Your task to perform on an android device: Turn off the flashlight Image 0: 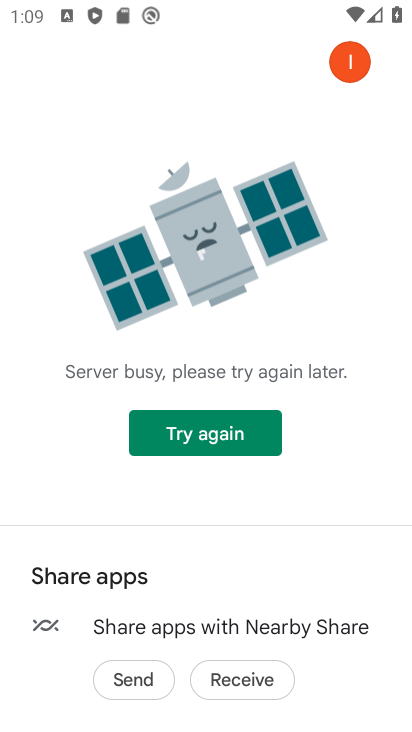
Step 0: press home button
Your task to perform on an android device: Turn off the flashlight Image 1: 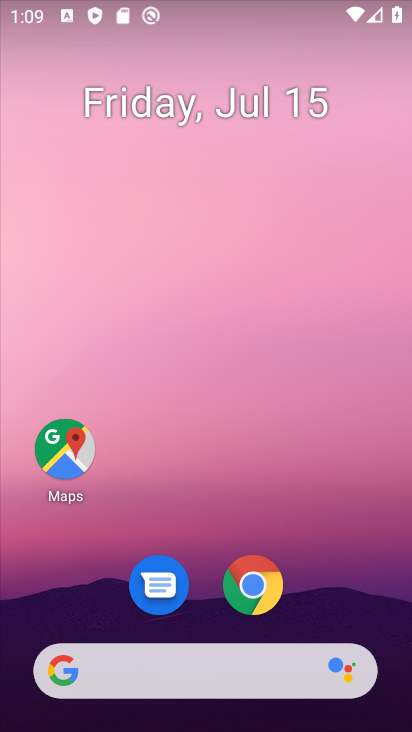
Step 1: drag from (331, 368) to (327, 26)
Your task to perform on an android device: Turn off the flashlight Image 2: 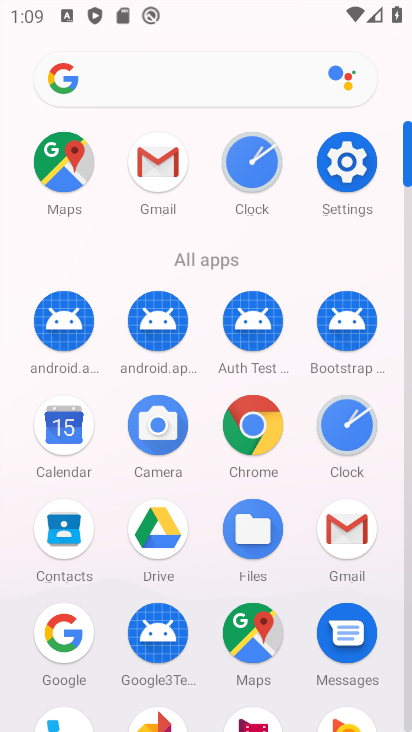
Step 2: click (350, 168)
Your task to perform on an android device: Turn off the flashlight Image 3: 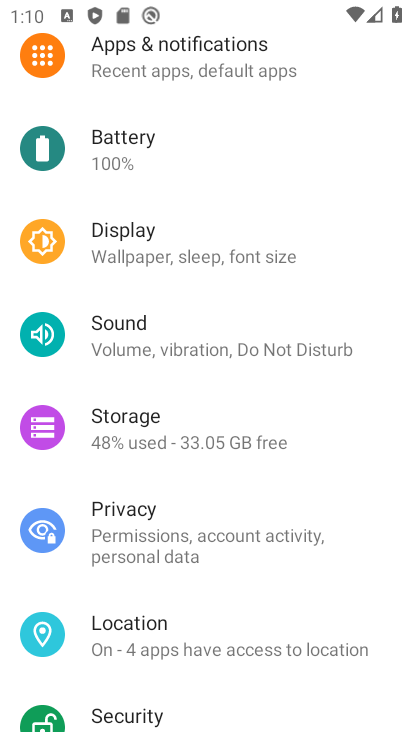
Step 3: drag from (246, 199) to (285, 647)
Your task to perform on an android device: Turn off the flashlight Image 4: 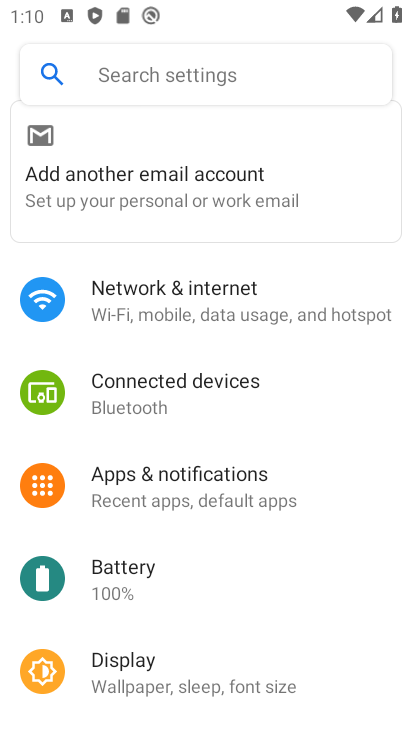
Step 4: drag from (278, 333) to (267, 607)
Your task to perform on an android device: Turn off the flashlight Image 5: 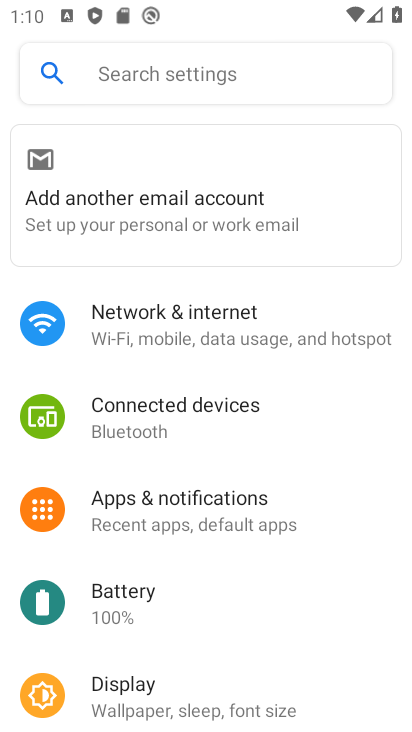
Step 5: click (248, 73)
Your task to perform on an android device: Turn off the flashlight Image 6: 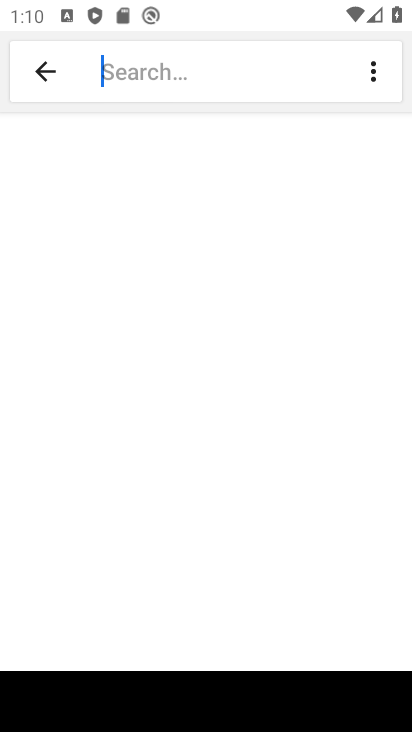
Step 6: type "Flashlight"
Your task to perform on an android device: Turn off the flashlight Image 7: 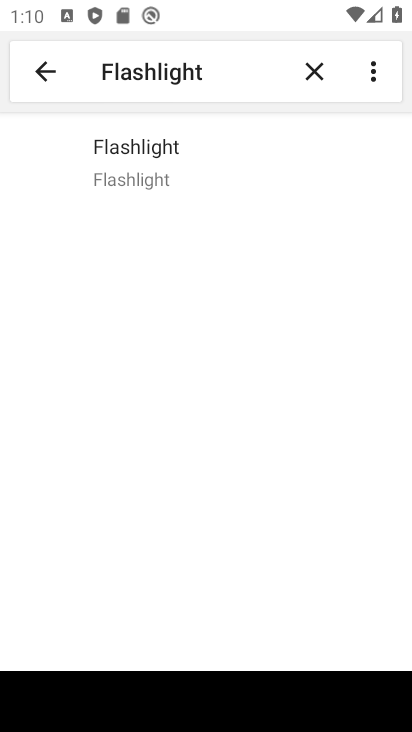
Step 7: click (143, 150)
Your task to perform on an android device: Turn off the flashlight Image 8: 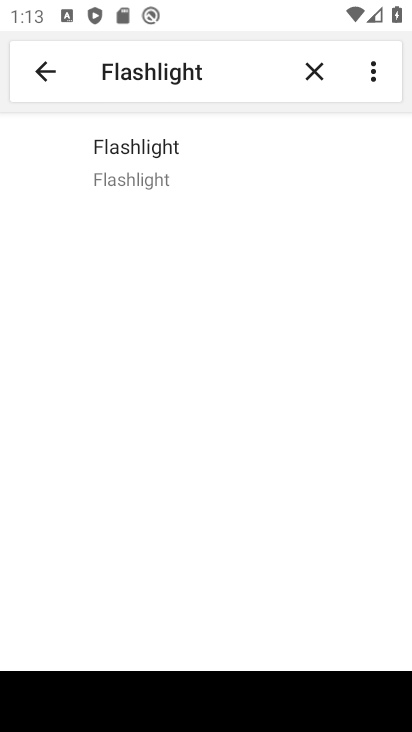
Step 8: task complete